Your task to perform on an android device: toggle airplane mode Image 0: 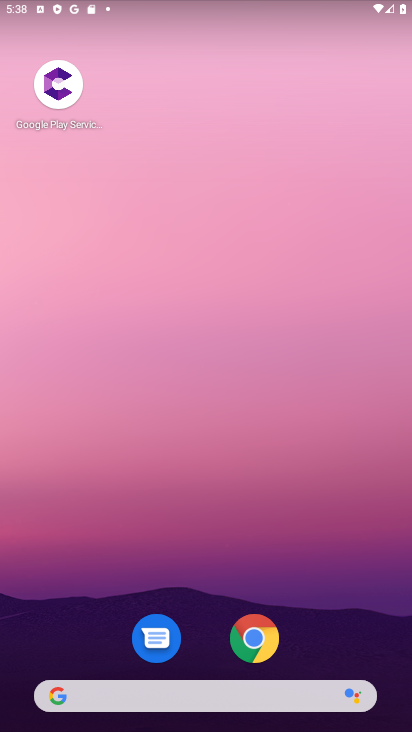
Step 0: drag from (218, 6) to (186, 571)
Your task to perform on an android device: toggle airplane mode Image 1: 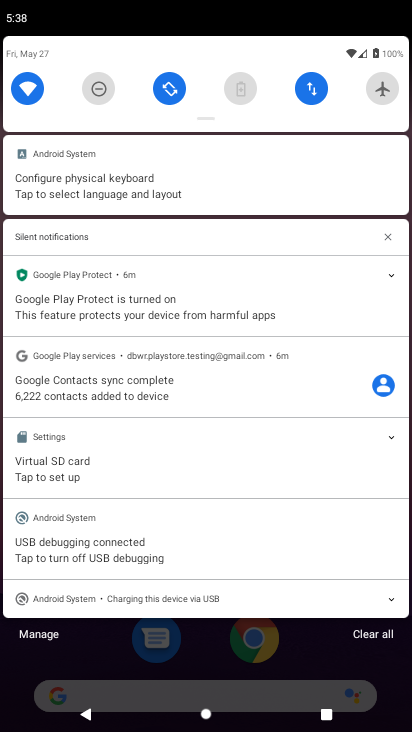
Step 1: click (386, 88)
Your task to perform on an android device: toggle airplane mode Image 2: 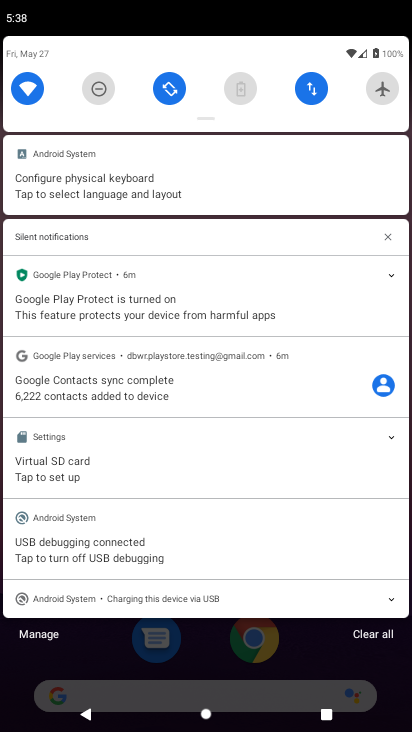
Step 2: click (386, 88)
Your task to perform on an android device: toggle airplane mode Image 3: 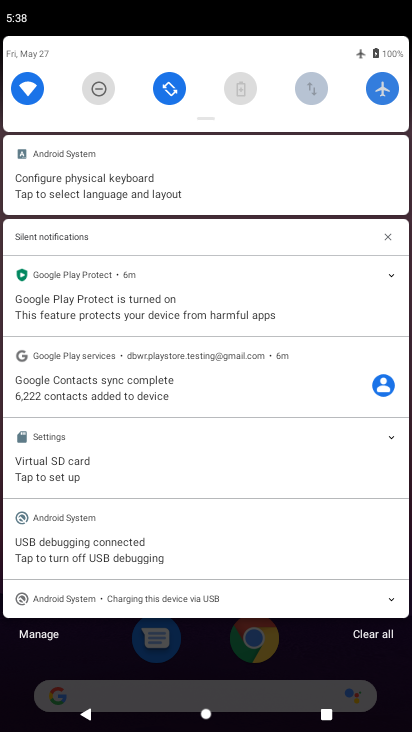
Step 3: click (386, 88)
Your task to perform on an android device: toggle airplane mode Image 4: 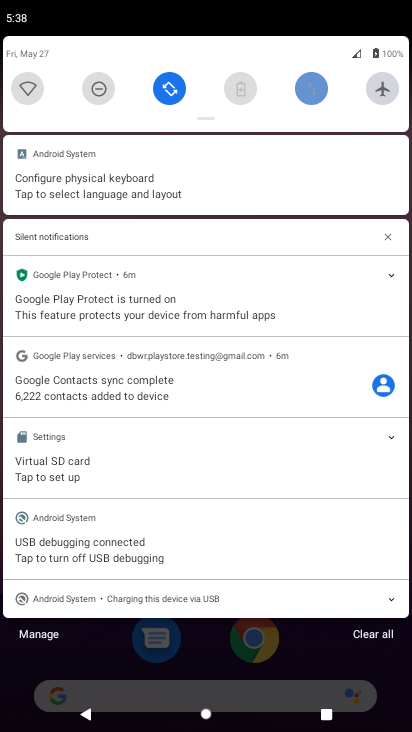
Step 4: click (386, 88)
Your task to perform on an android device: toggle airplane mode Image 5: 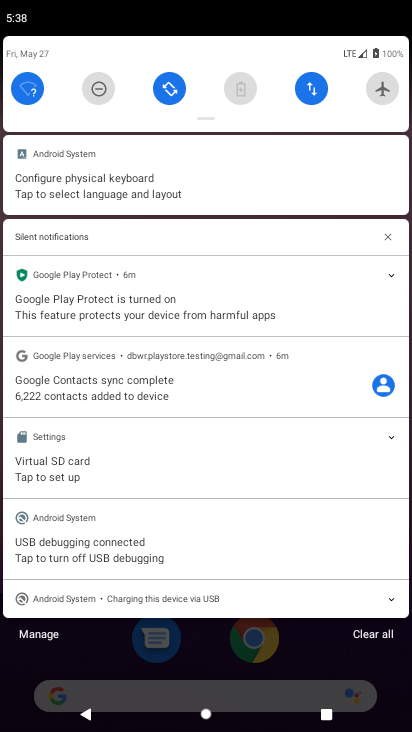
Step 5: task complete